Your task to perform on an android device: What's on my calendar tomorrow? Image 0: 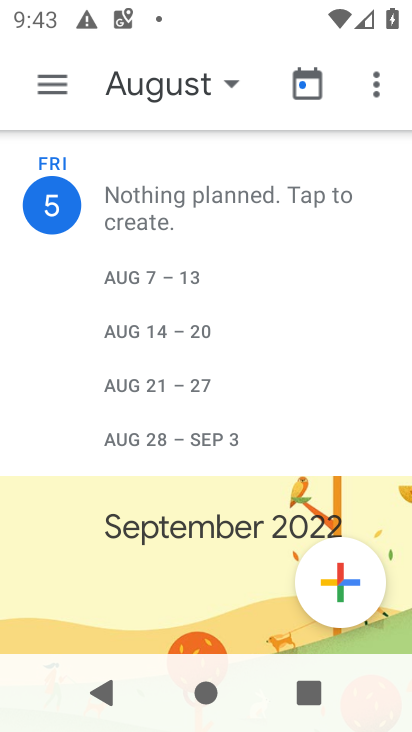
Step 0: click (127, 83)
Your task to perform on an android device: What's on my calendar tomorrow? Image 1: 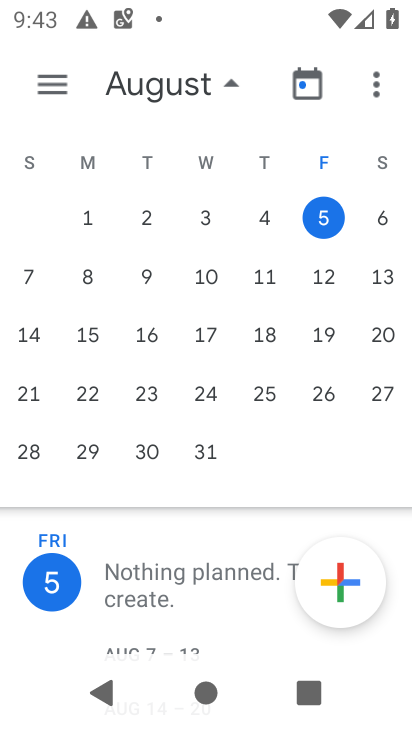
Step 1: click (375, 223)
Your task to perform on an android device: What's on my calendar tomorrow? Image 2: 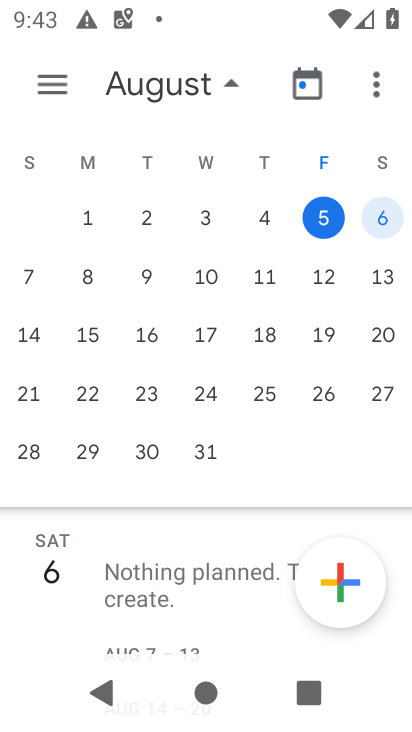
Step 2: task complete